Your task to perform on an android device: toggle javascript in the chrome app Image 0: 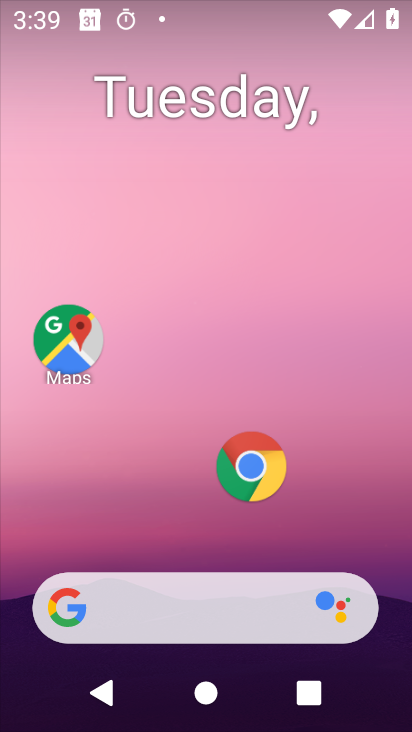
Step 0: click (245, 472)
Your task to perform on an android device: toggle javascript in the chrome app Image 1: 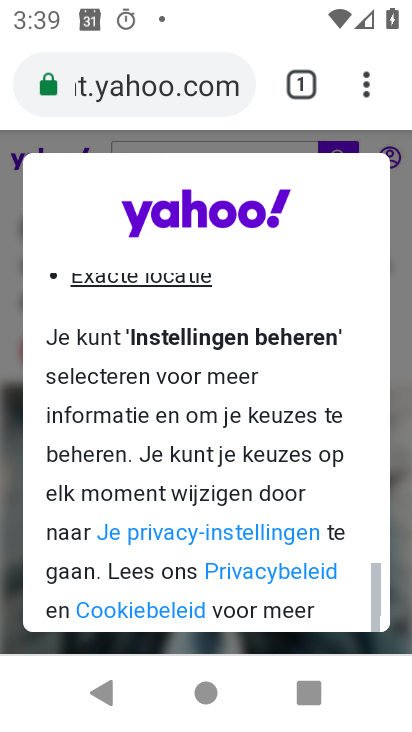
Step 1: click (370, 85)
Your task to perform on an android device: toggle javascript in the chrome app Image 2: 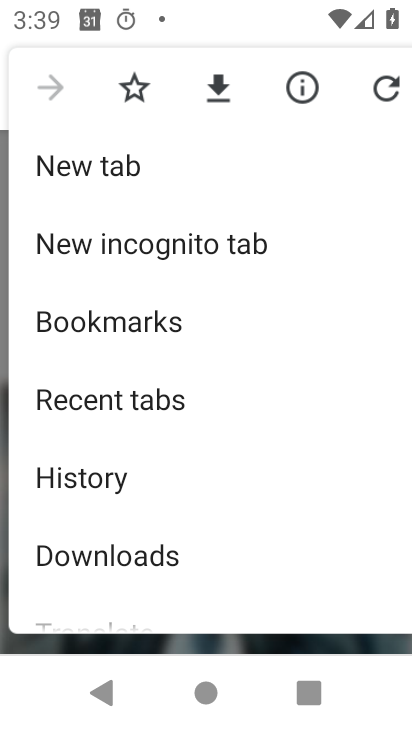
Step 2: drag from (195, 578) to (237, 145)
Your task to perform on an android device: toggle javascript in the chrome app Image 3: 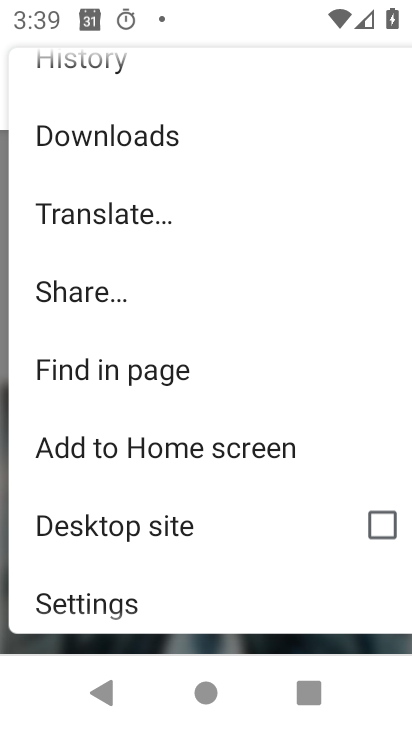
Step 3: click (136, 603)
Your task to perform on an android device: toggle javascript in the chrome app Image 4: 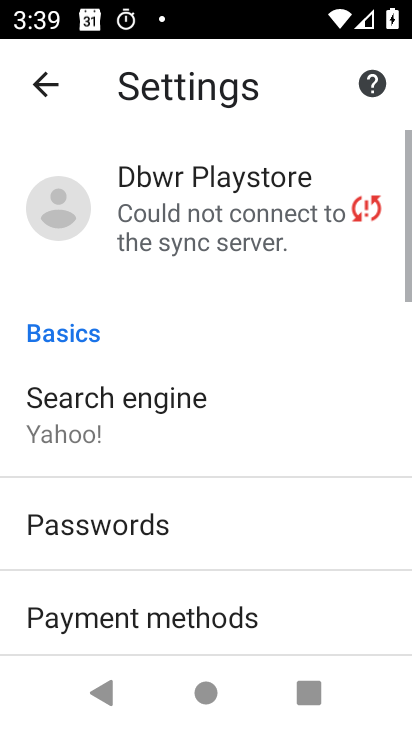
Step 4: drag from (326, 600) to (367, 234)
Your task to perform on an android device: toggle javascript in the chrome app Image 5: 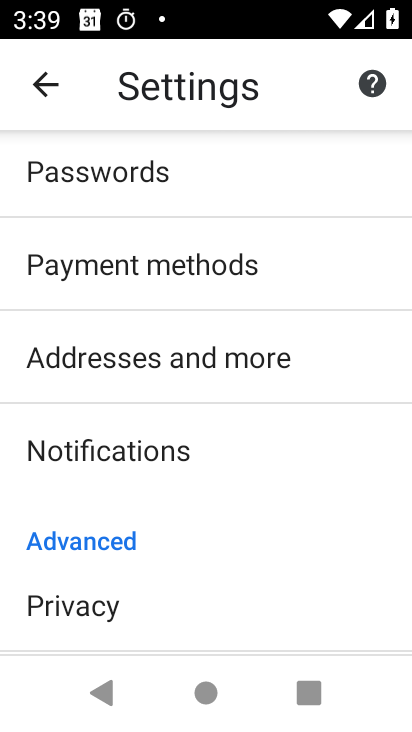
Step 5: drag from (168, 574) to (95, 95)
Your task to perform on an android device: toggle javascript in the chrome app Image 6: 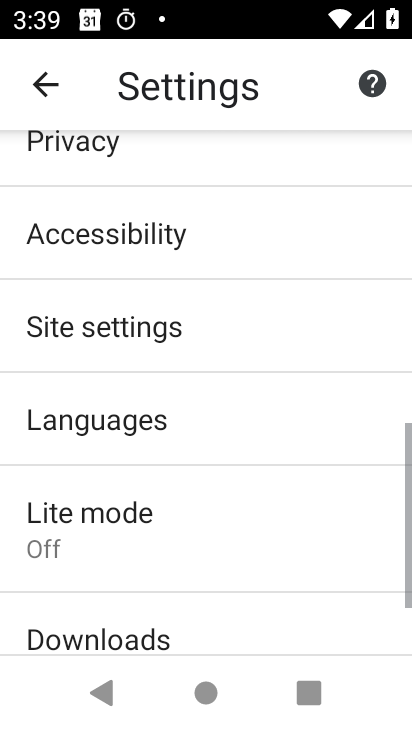
Step 6: drag from (282, 610) to (297, 204)
Your task to perform on an android device: toggle javascript in the chrome app Image 7: 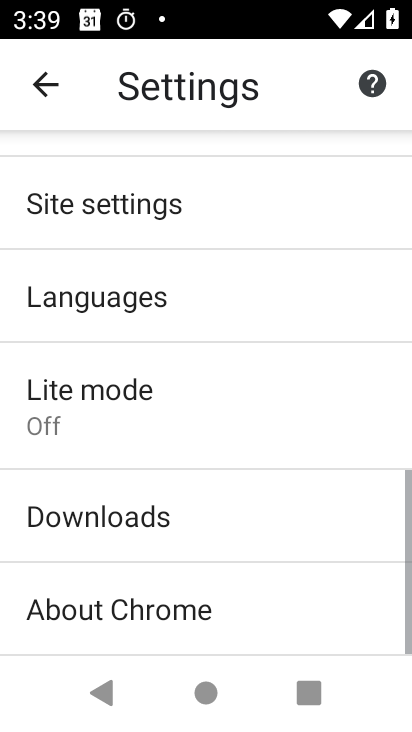
Step 7: click (137, 211)
Your task to perform on an android device: toggle javascript in the chrome app Image 8: 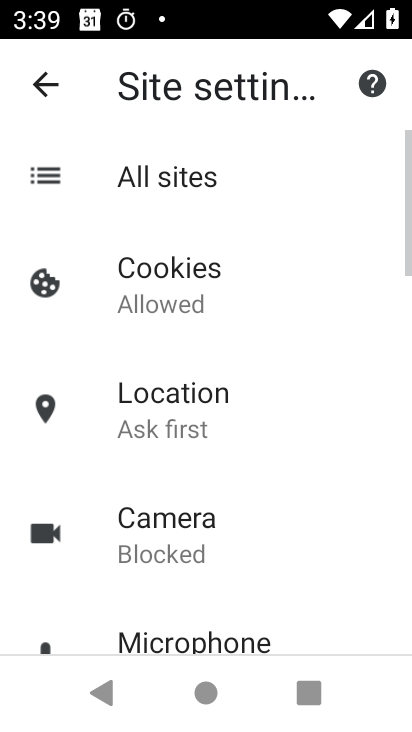
Step 8: drag from (285, 609) to (288, 221)
Your task to perform on an android device: toggle javascript in the chrome app Image 9: 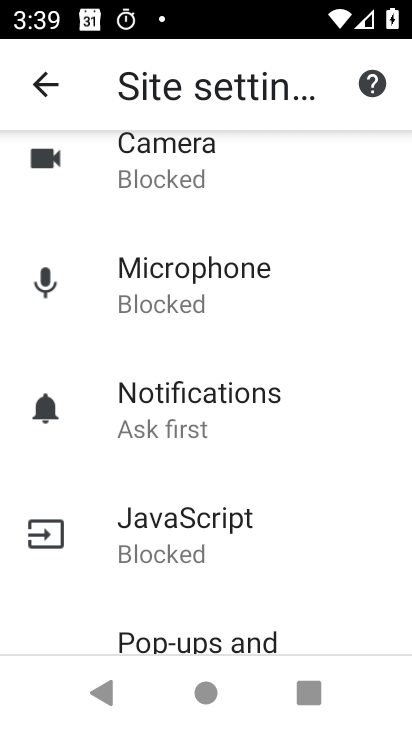
Step 9: click (202, 538)
Your task to perform on an android device: toggle javascript in the chrome app Image 10: 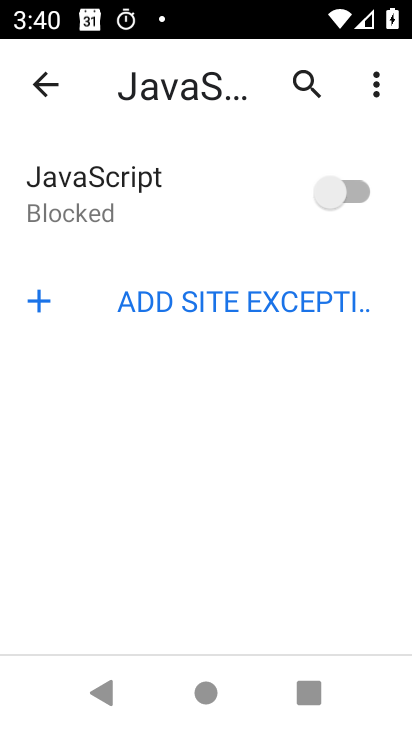
Step 10: task complete